Your task to perform on an android device: Open eBay Image 0: 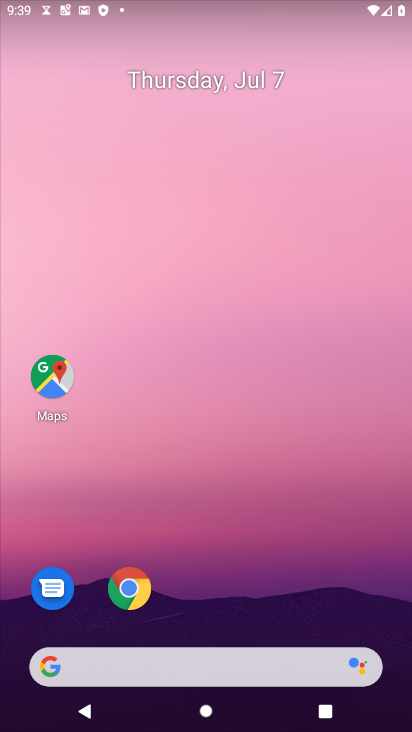
Step 0: click (139, 576)
Your task to perform on an android device: Open eBay Image 1: 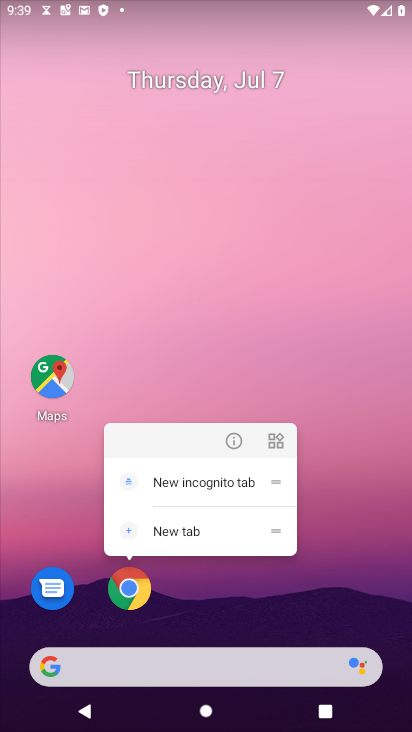
Step 1: click (132, 588)
Your task to perform on an android device: Open eBay Image 2: 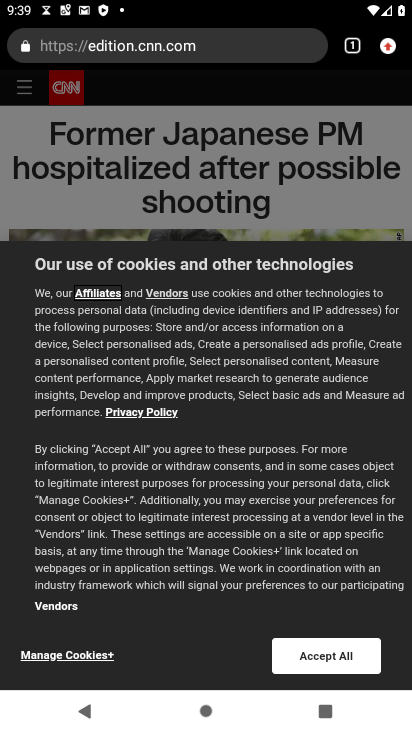
Step 2: click (321, 676)
Your task to perform on an android device: Open eBay Image 3: 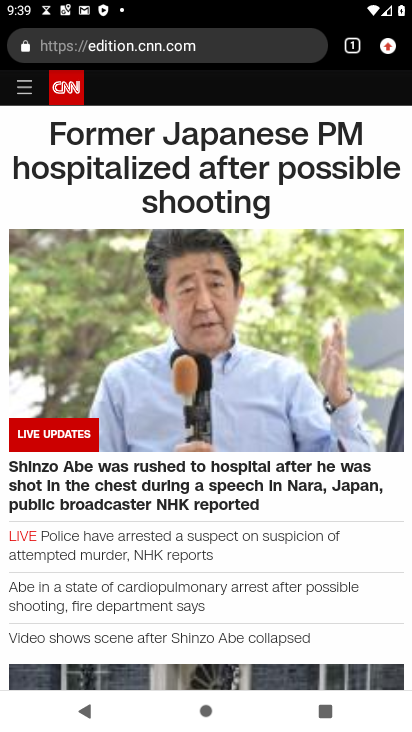
Step 3: drag from (389, 43) to (334, 154)
Your task to perform on an android device: Open eBay Image 4: 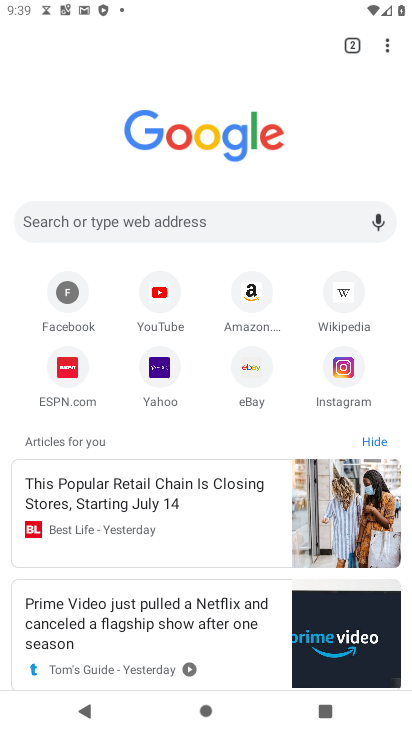
Step 4: click (253, 371)
Your task to perform on an android device: Open eBay Image 5: 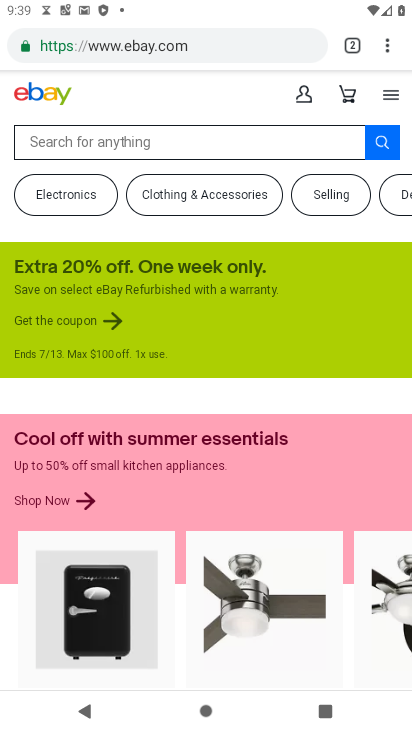
Step 5: task complete